Your task to perform on an android device: Go to notification settings Image 0: 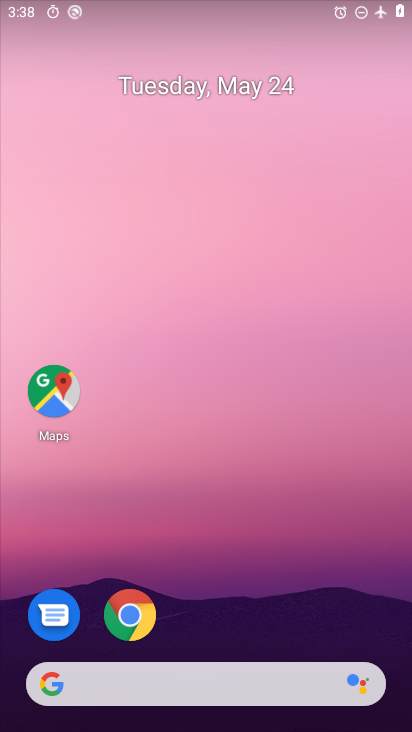
Step 0: drag from (181, 653) to (245, 278)
Your task to perform on an android device: Go to notification settings Image 1: 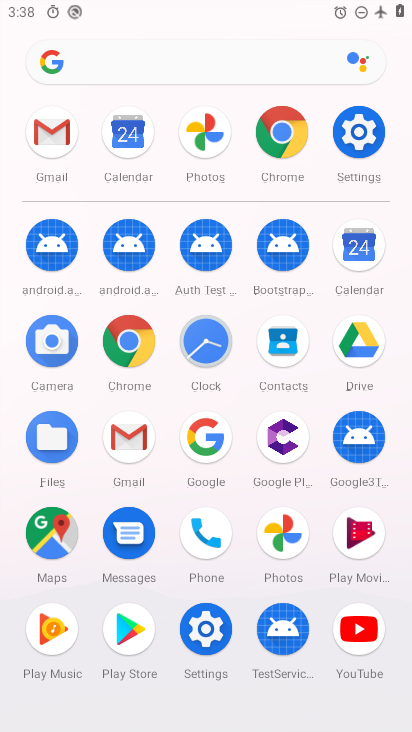
Step 1: click (360, 125)
Your task to perform on an android device: Go to notification settings Image 2: 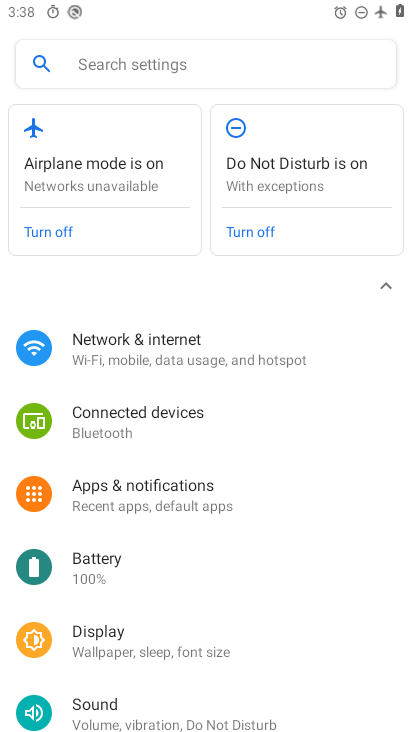
Step 2: click (129, 498)
Your task to perform on an android device: Go to notification settings Image 3: 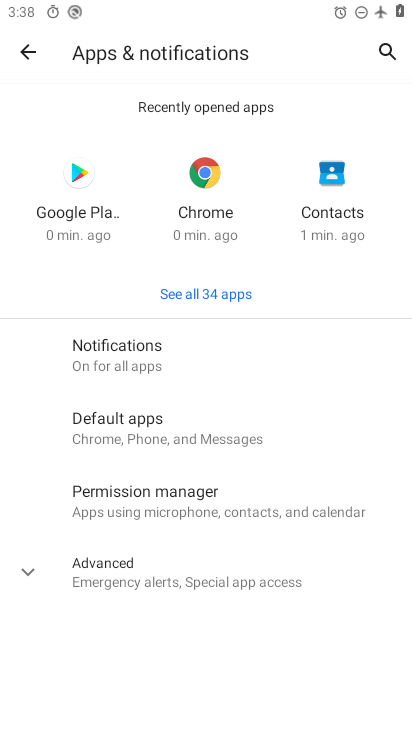
Step 3: drag from (134, 642) to (179, 273)
Your task to perform on an android device: Go to notification settings Image 4: 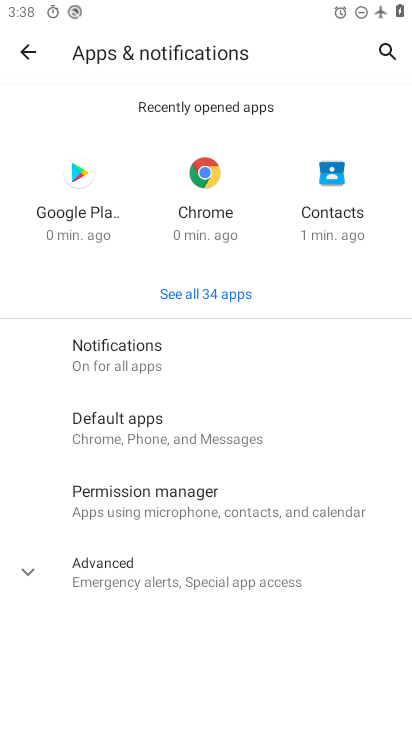
Step 4: click (196, 578)
Your task to perform on an android device: Go to notification settings Image 5: 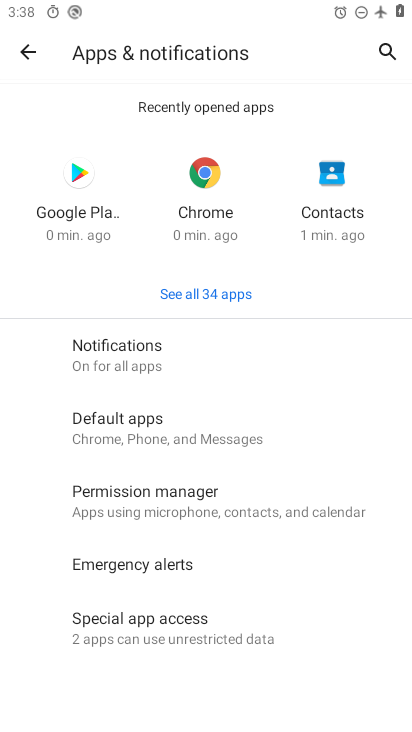
Step 5: task complete